Your task to perform on an android device: turn on improve location accuracy Image 0: 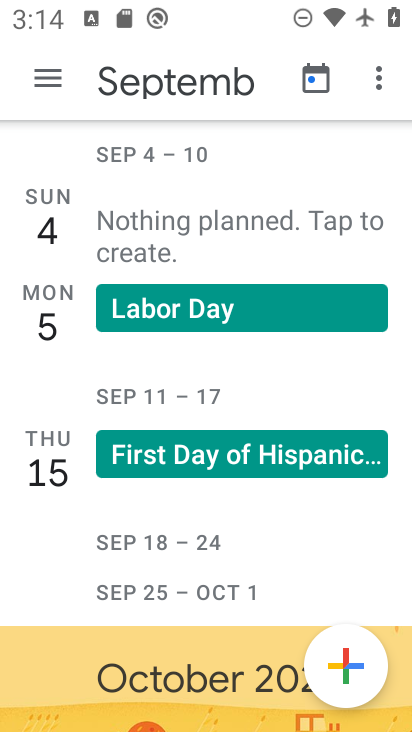
Step 0: press home button
Your task to perform on an android device: turn on improve location accuracy Image 1: 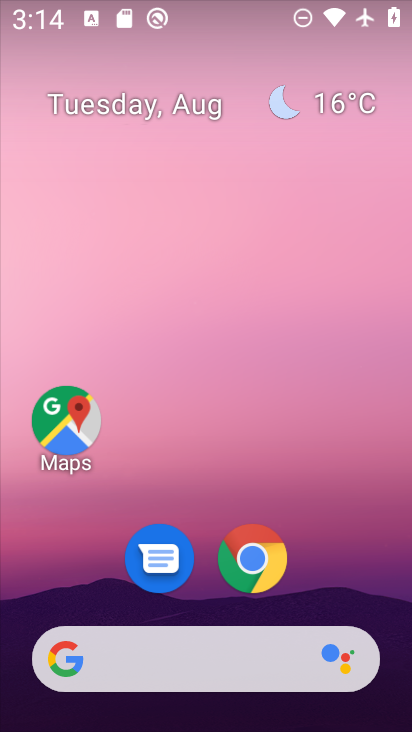
Step 1: drag from (202, 432) to (196, 144)
Your task to perform on an android device: turn on improve location accuracy Image 2: 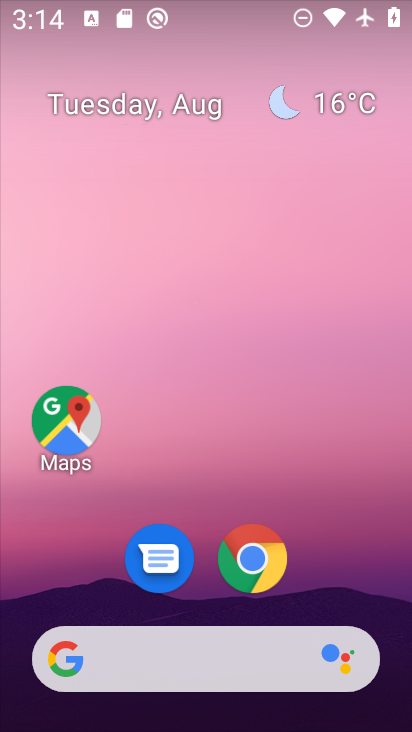
Step 2: drag from (200, 501) to (207, 83)
Your task to perform on an android device: turn on improve location accuracy Image 3: 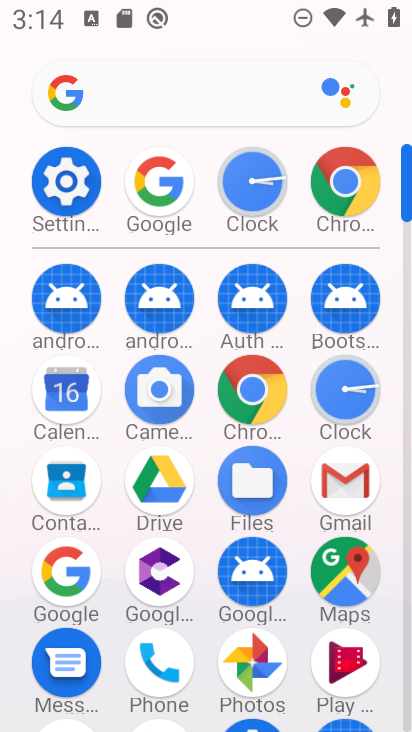
Step 3: click (83, 188)
Your task to perform on an android device: turn on improve location accuracy Image 4: 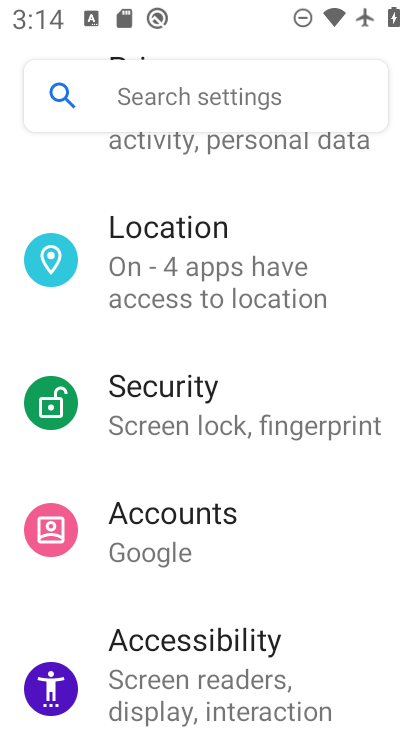
Step 4: click (223, 277)
Your task to perform on an android device: turn on improve location accuracy Image 5: 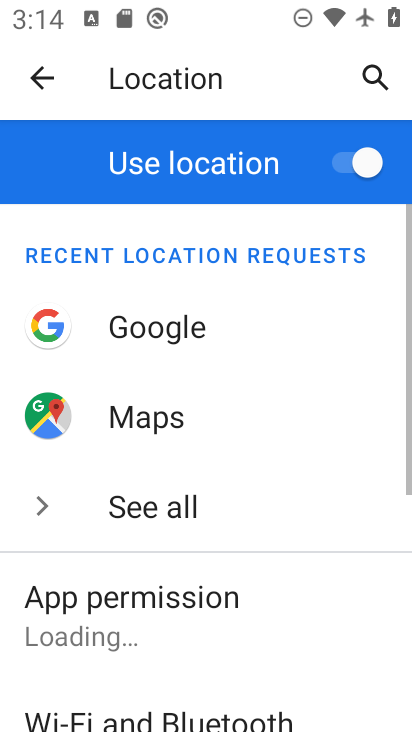
Step 5: drag from (283, 613) to (262, 264)
Your task to perform on an android device: turn on improve location accuracy Image 6: 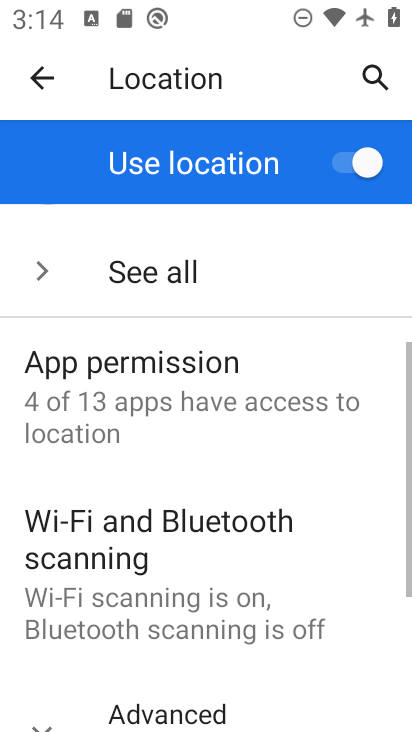
Step 6: drag from (243, 640) to (230, 325)
Your task to perform on an android device: turn on improve location accuracy Image 7: 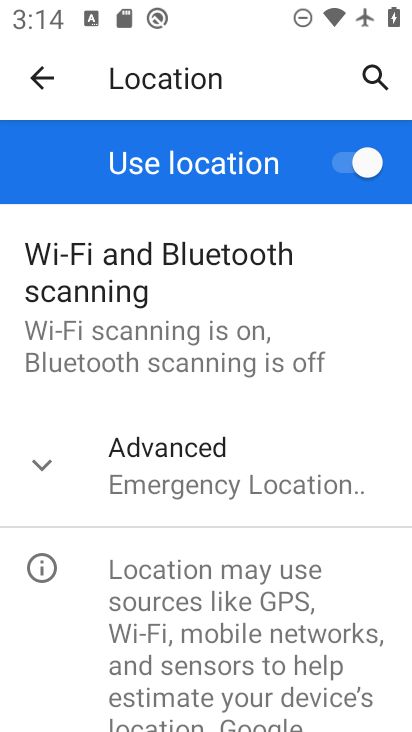
Step 7: click (207, 486)
Your task to perform on an android device: turn on improve location accuracy Image 8: 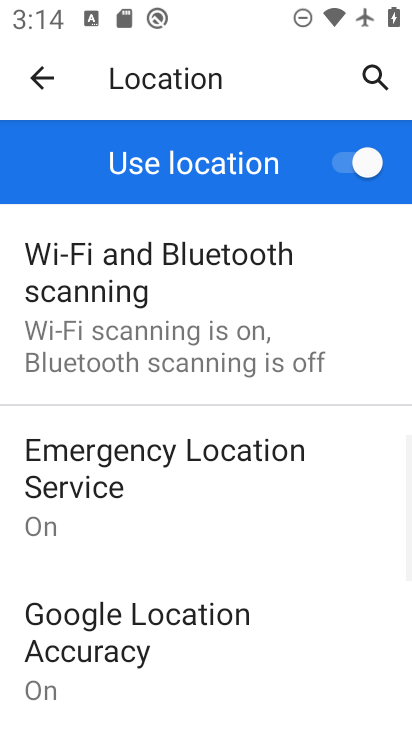
Step 8: click (204, 625)
Your task to perform on an android device: turn on improve location accuracy Image 9: 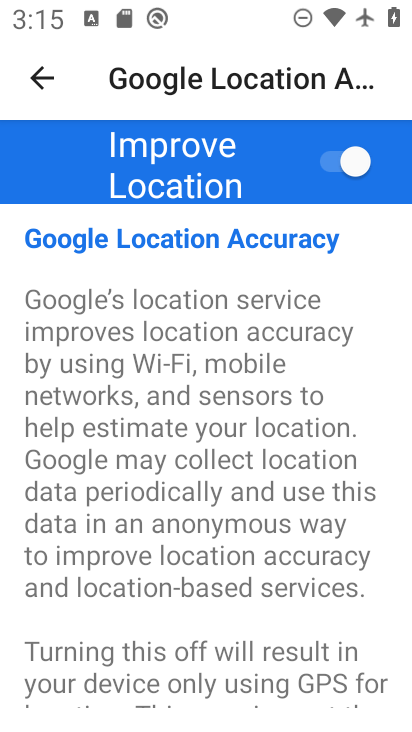
Step 9: task complete